Your task to perform on an android device: Search for seafood restaurants on Google Maps Image 0: 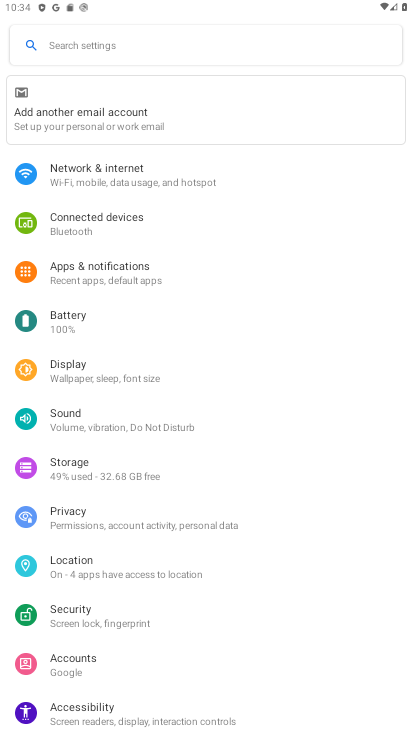
Step 0: press home button
Your task to perform on an android device: Search for seafood restaurants on Google Maps Image 1: 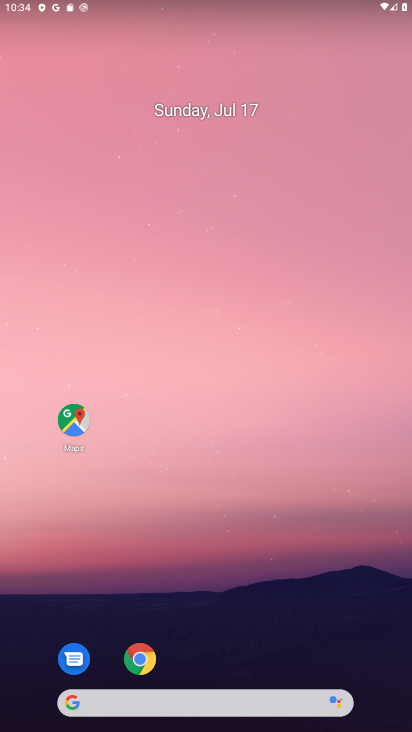
Step 1: click (68, 426)
Your task to perform on an android device: Search for seafood restaurants on Google Maps Image 2: 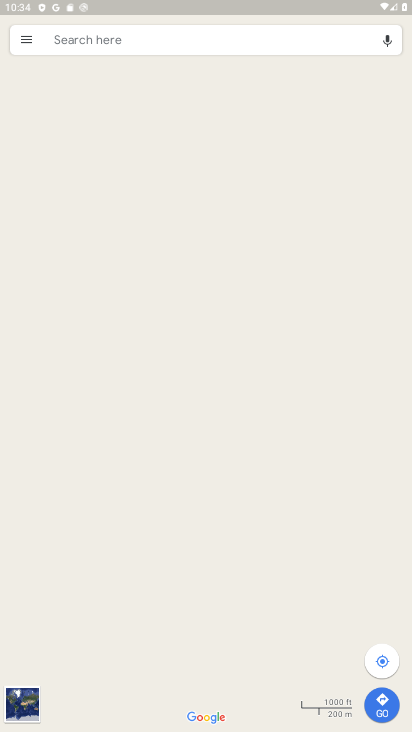
Step 2: click (119, 44)
Your task to perform on an android device: Search for seafood restaurants on Google Maps Image 3: 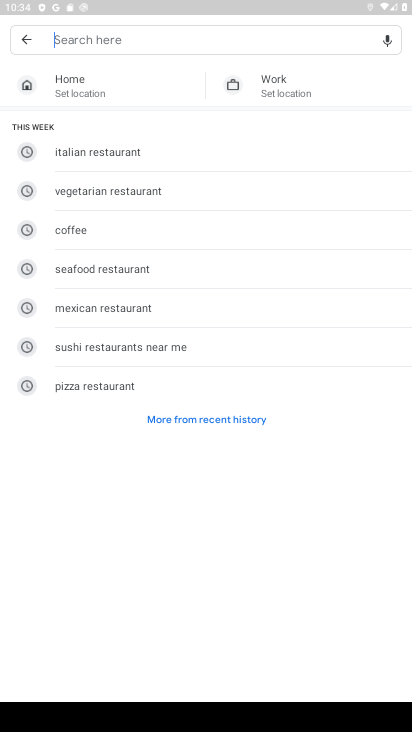
Step 3: click (82, 278)
Your task to perform on an android device: Search for seafood restaurants on Google Maps Image 4: 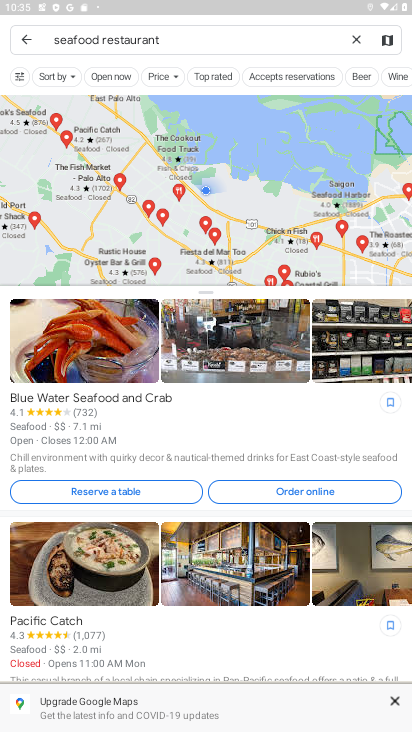
Step 4: task complete